Your task to perform on an android device: set an alarm Image 0: 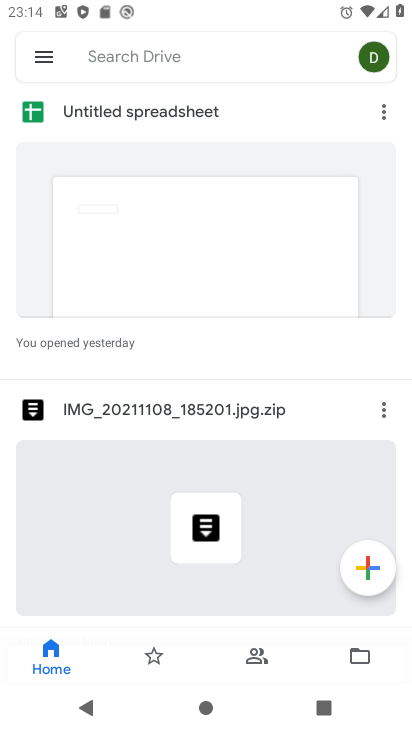
Step 0: press home button
Your task to perform on an android device: set an alarm Image 1: 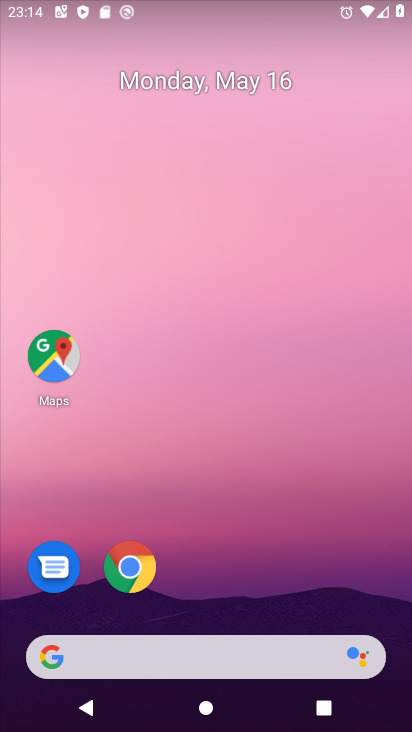
Step 1: drag from (308, 443) to (189, 12)
Your task to perform on an android device: set an alarm Image 2: 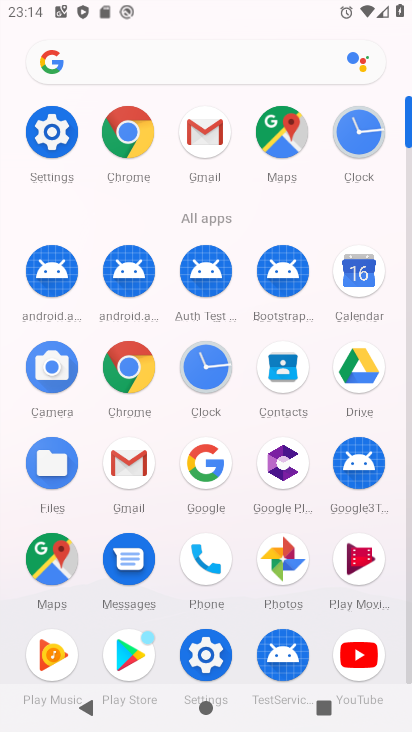
Step 2: click (363, 137)
Your task to perform on an android device: set an alarm Image 3: 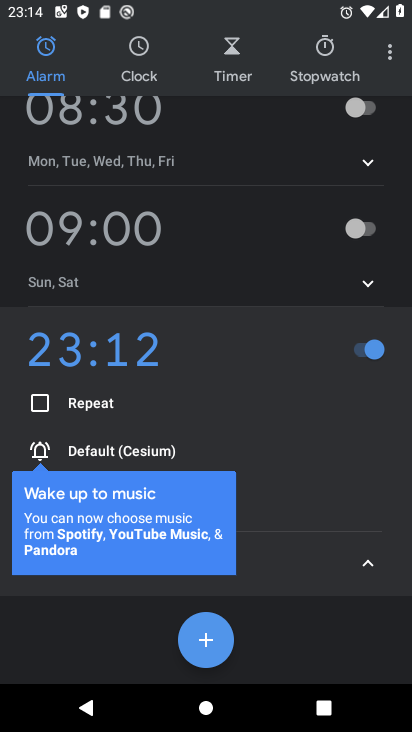
Step 3: task complete